Your task to perform on an android device: turn on wifi Image 0: 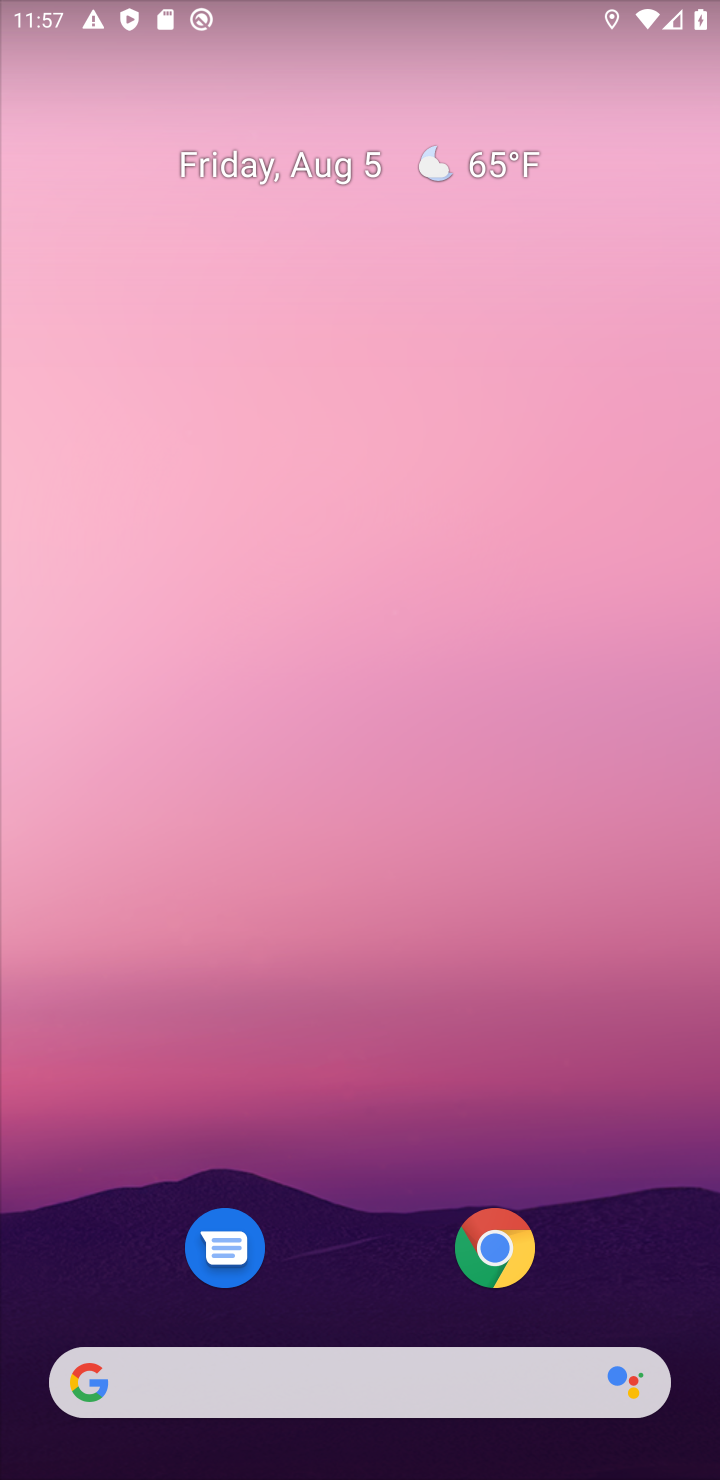
Step 0: press home button
Your task to perform on an android device: turn on wifi Image 1: 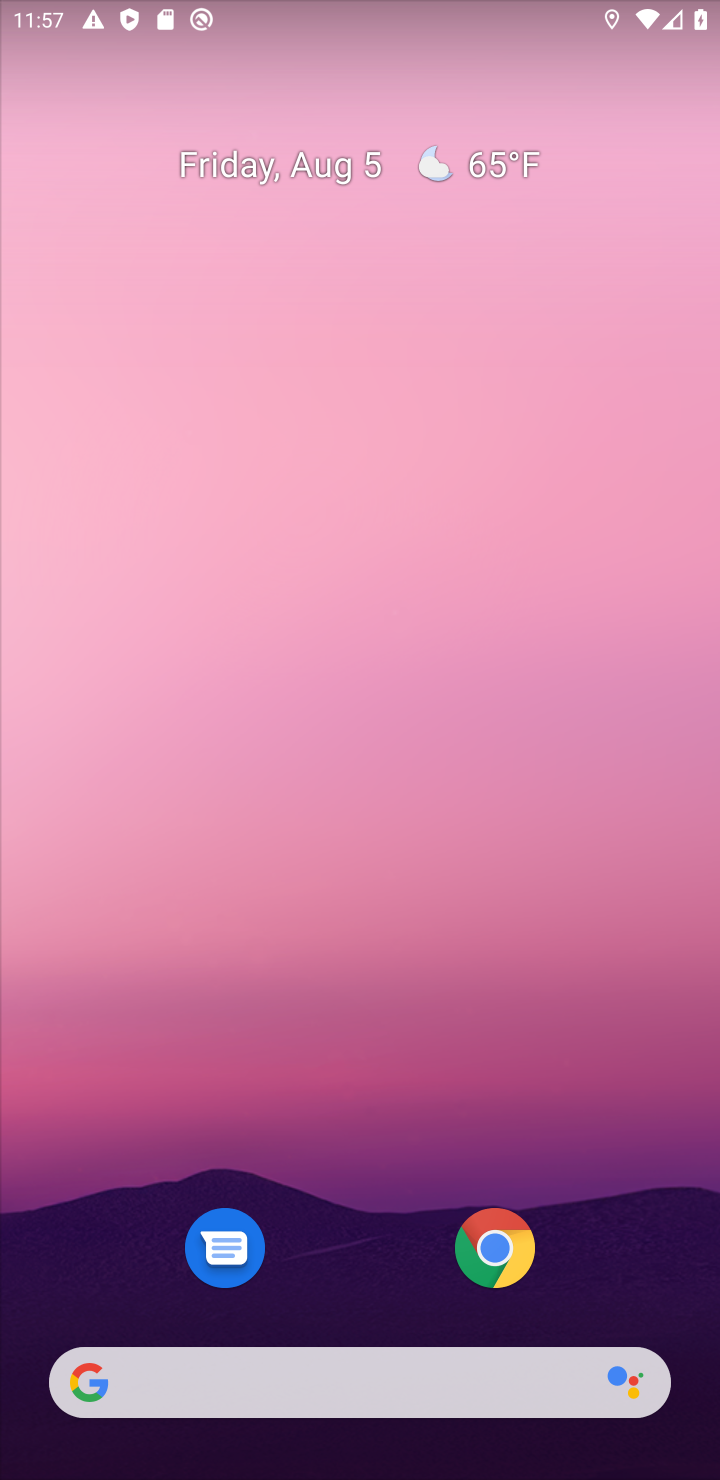
Step 1: task complete